Your task to perform on an android device: Open notification settings Image 0: 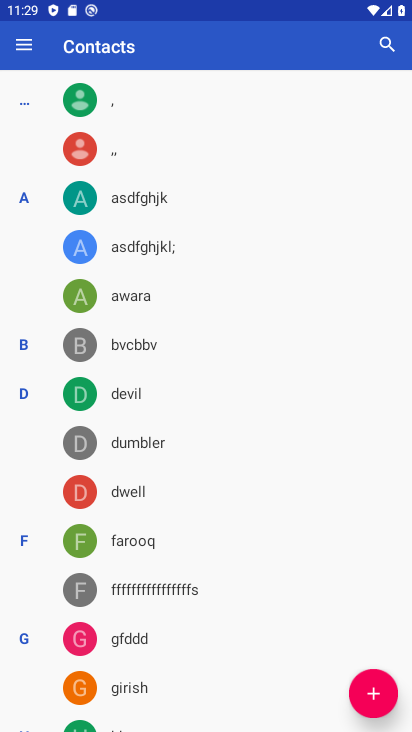
Step 0: press home button
Your task to perform on an android device: Open notification settings Image 1: 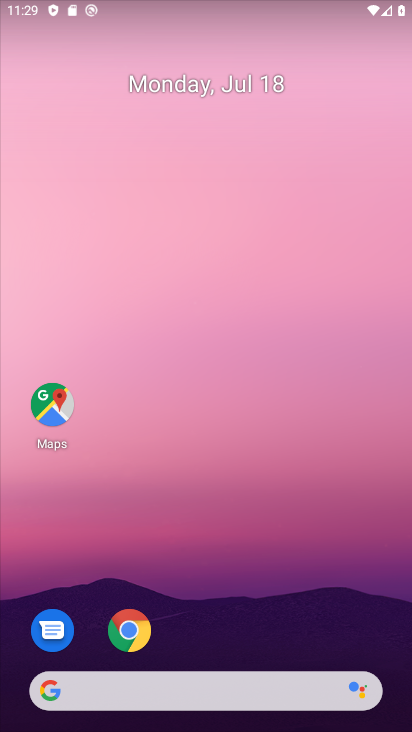
Step 1: drag from (248, 657) to (261, 6)
Your task to perform on an android device: Open notification settings Image 2: 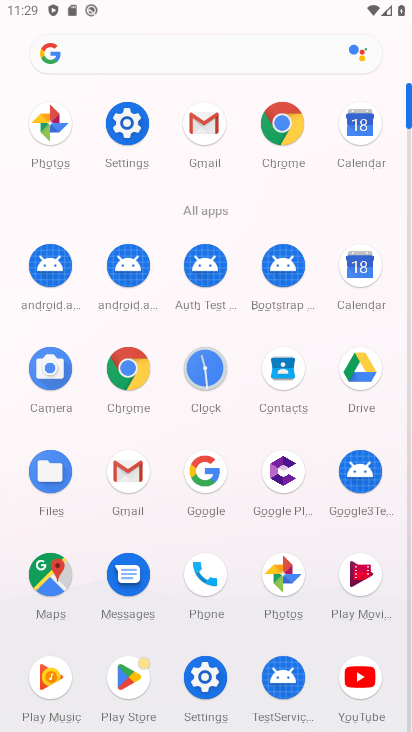
Step 2: click (208, 678)
Your task to perform on an android device: Open notification settings Image 3: 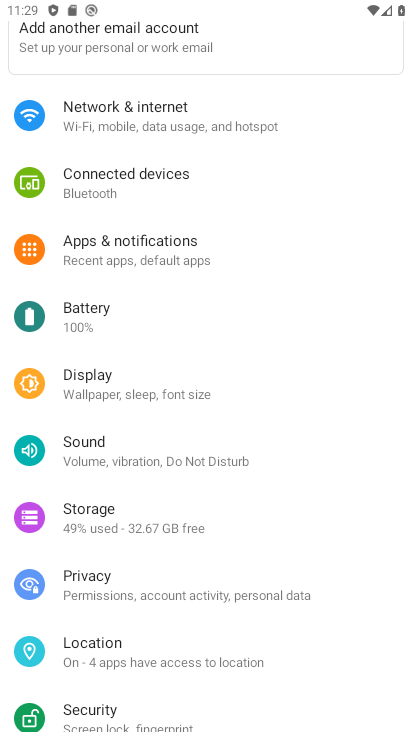
Step 3: click (182, 243)
Your task to perform on an android device: Open notification settings Image 4: 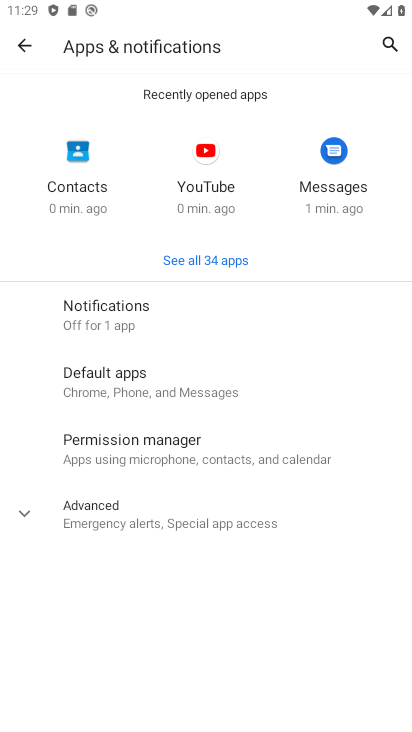
Step 4: click (140, 313)
Your task to perform on an android device: Open notification settings Image 5: 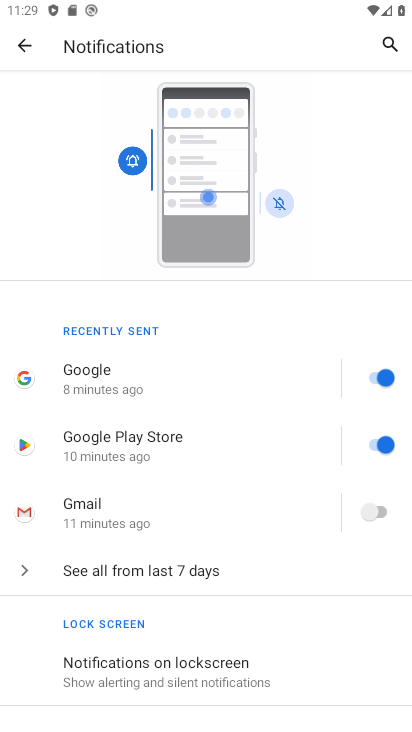
Step 5: task complete